Your task to perform on an android device: Go to internet settings Image 0: 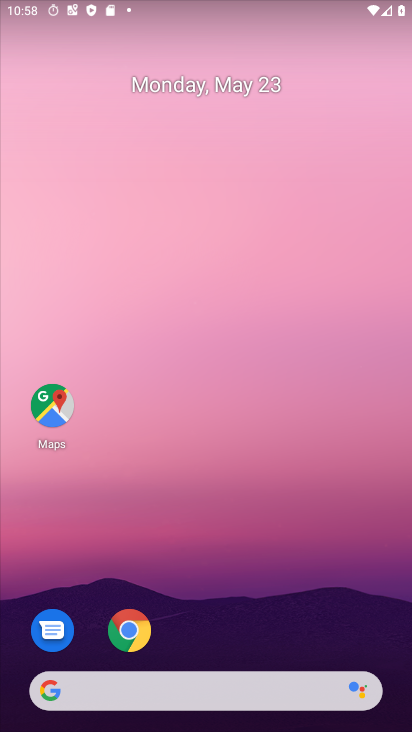
Step 0: drag from (275, 658) to (334, 4)
Your task to perform on an android device: Go to internet settings Image 1: 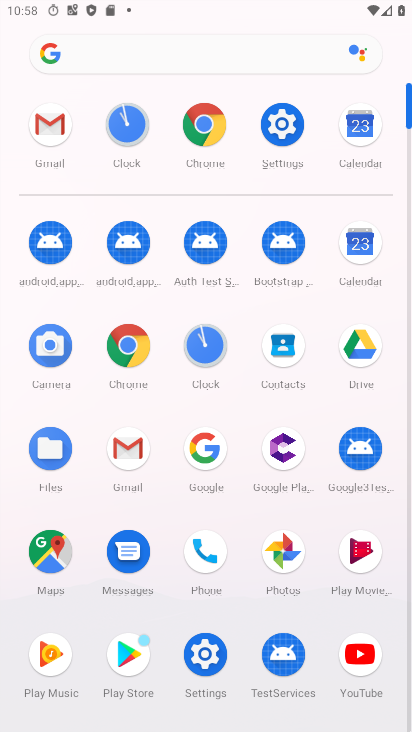
Step 1: click (286, 121)
Your task to perform on an android device: Go to internet settings Image 2: 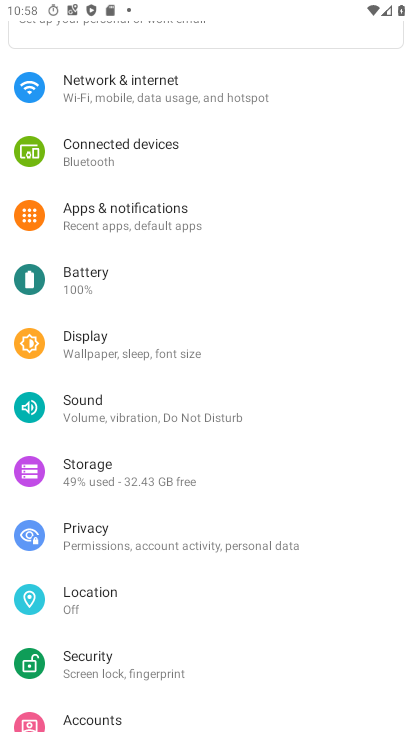
Step 2: click (139, 101)
Your task to perform on an android device: Go to internet settings Image 3: 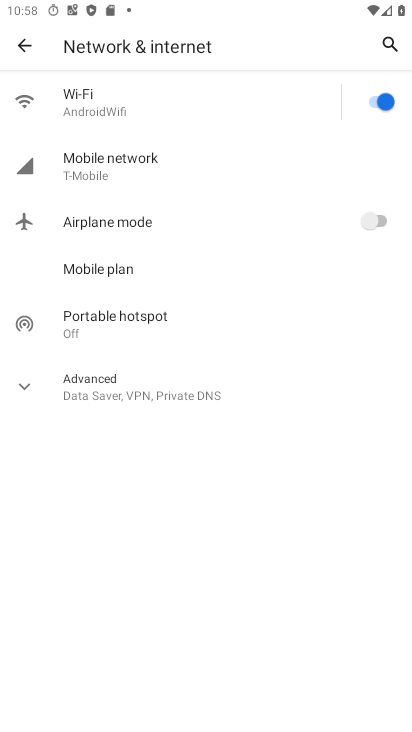
Step 3: task complete